Your task to perform on an android device: turn on showing notifications on the lock screen Image 0: 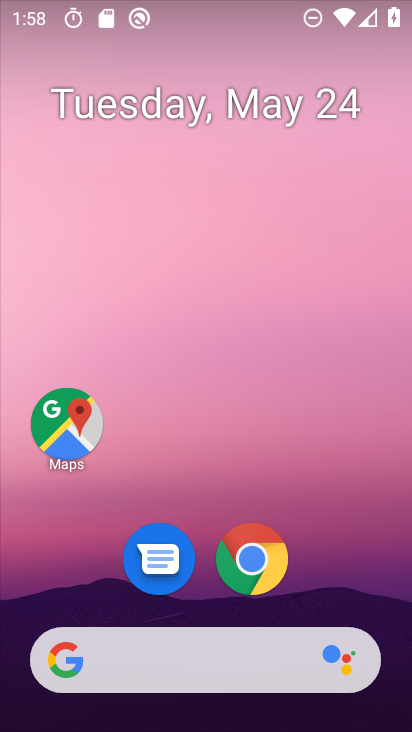
Step 0: drag from (398, 696) to (364, 383)
Your task to perform on an android device: turn on showing notifications on the lock screen Image 1: 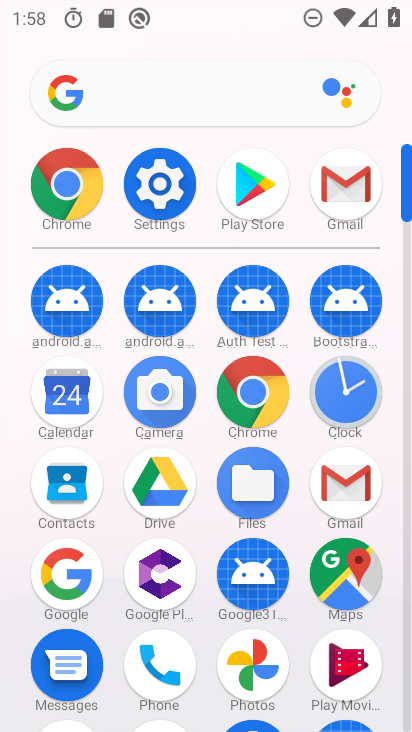
Step 1: click (161, 199)
Your task to perform on an android device: turn on showing notifications on the lock screen Image 2: 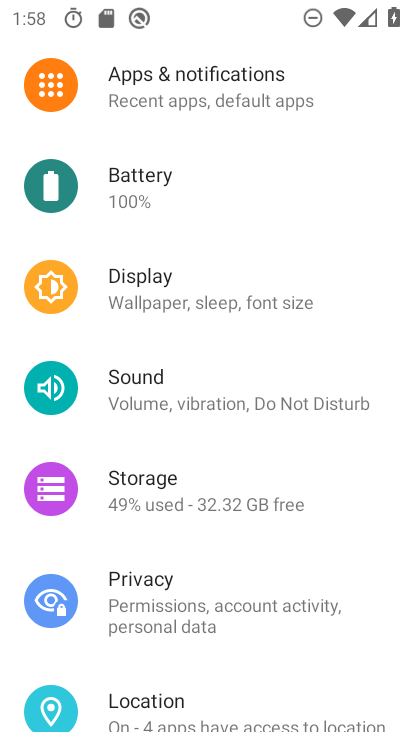
Step 2: click (185, 89)
Your task to perform on an android device: turn on showing notifications on the lock screen Image 3: 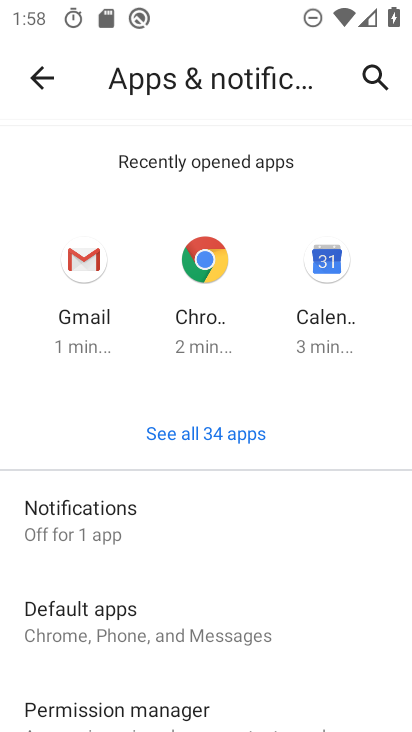
Step 3: drag from (312, 692) to (327, 261)
Your task to perform on an android device: turn on showing notifications on the lock screen Image 4: 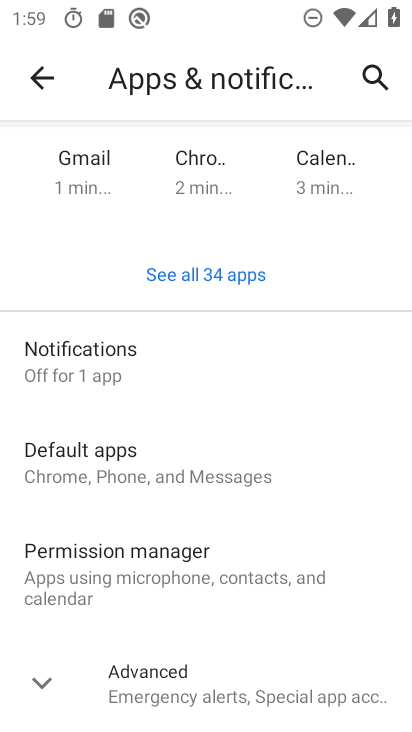
Step 4: click (83, 353)
Your task to perform on an android device: turn on showing notifications on the lock screen Image 5: 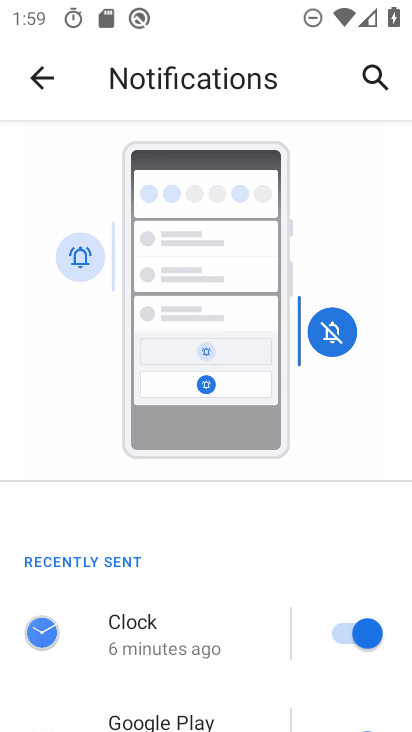
Step 5: drag from (269, 704) to (213, 95)
Your task to perform on an android device: turn on showing notifications on the lock screen Image 6: 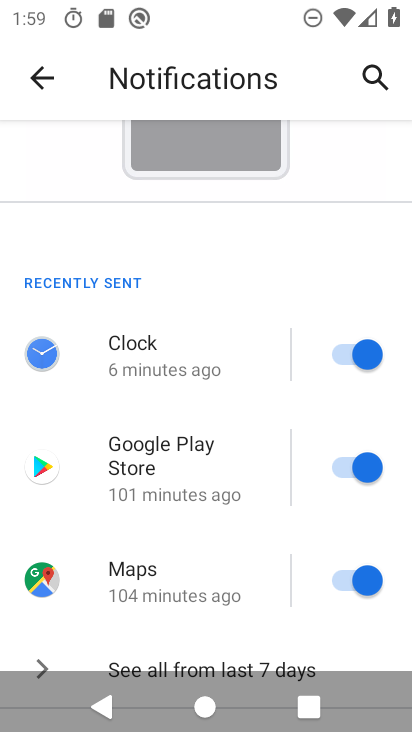
Step 6: drag from (253, 621) to (193, 180)
Your task to perform on an android device: turn on showing notifications on the lock screen Image 7: 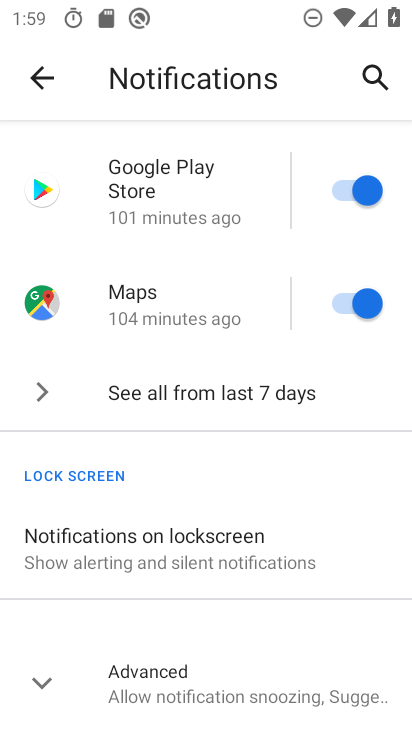
Step 7: click (167, 549)
Your task to perform on an android device: turn on showing notifications on the lock screen Image 8: 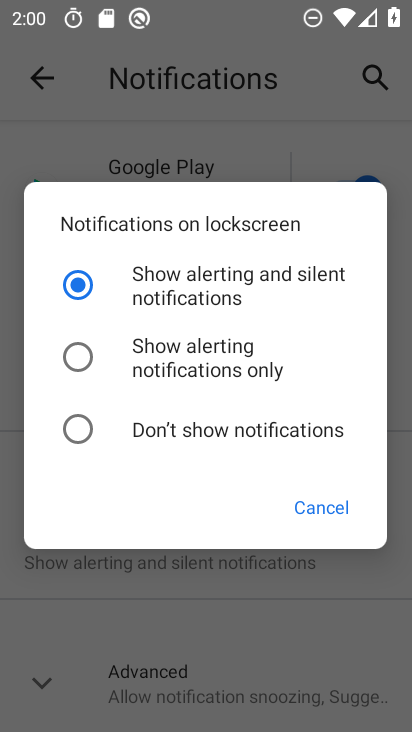
Step 8: task complete